Your task to perform on an android device: Go to notification settings Image 0: 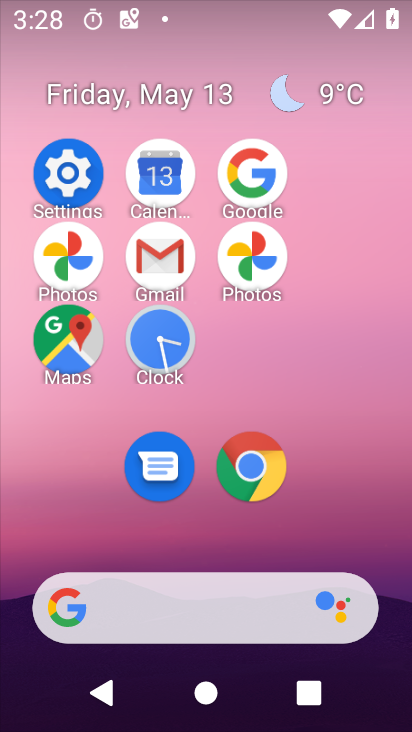
Step 0: click (53, 180)
Your task to perform on an android device: Go to notification settings Image 1: 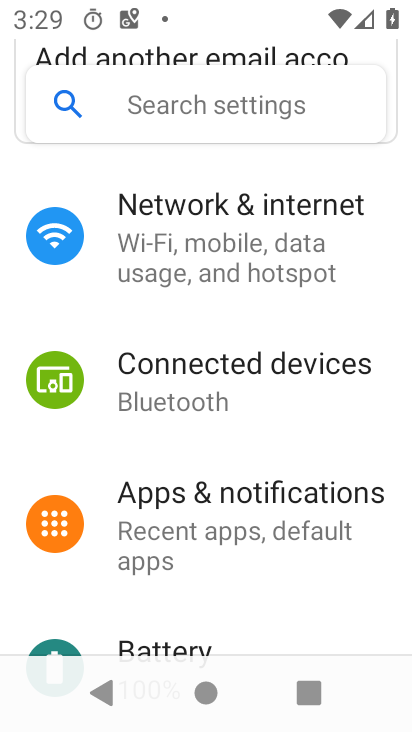
Step 1: click (250, 529)
Your task to perform on an android device: Go to notification settings Image 2: 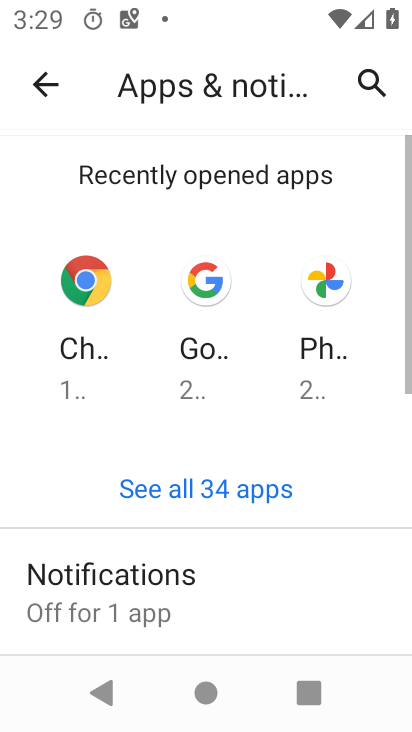
Step 2: task complete